Your task to perform on an android device: Open Wikipedia Image 0: 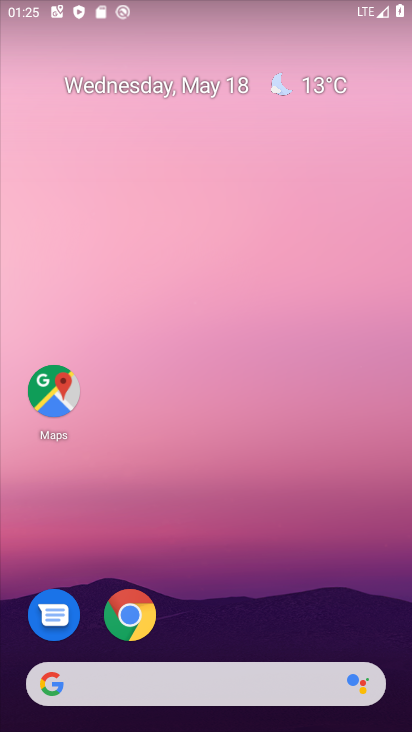
Step 0: press home button
Your task to perform on an android device: Open Wikipedia Image 1: 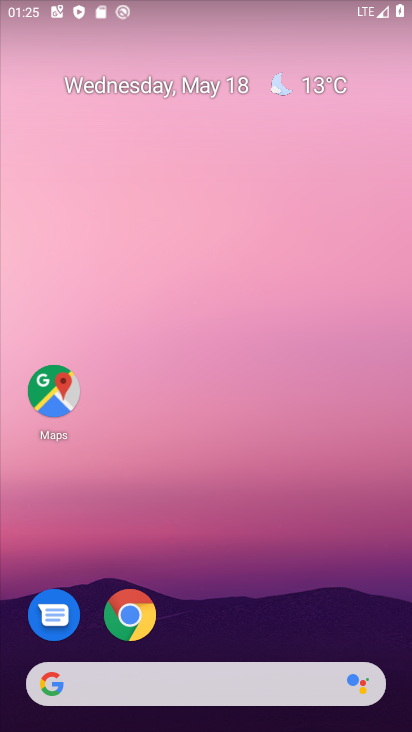
Step 1: click (140, 607)
Your task to perform on an android device: Open Wikipedia Image 2: 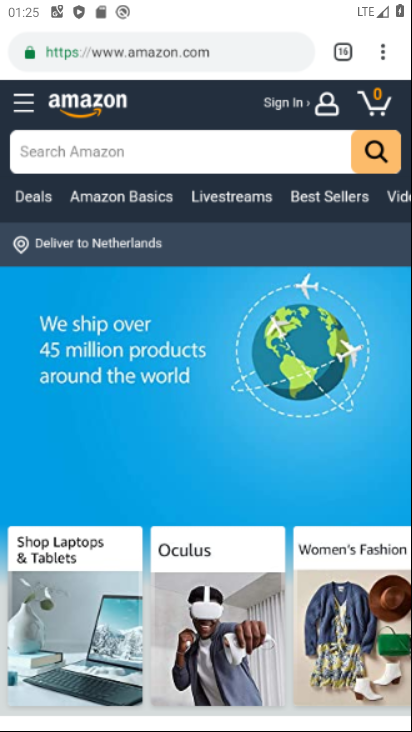
Step 2: drag from (382, 58) to (249, 105)
Your task to perform on an android device: Open Wikipedia Image 3: 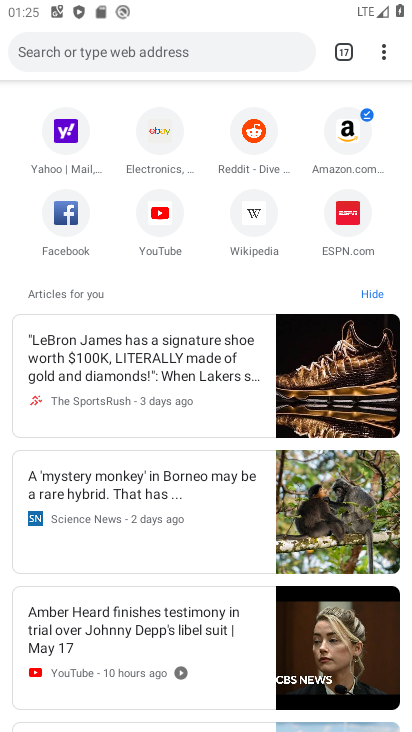
Step 3: click (259, 227)
Your task to perform on an android device: Open Wikipedia Image 4: 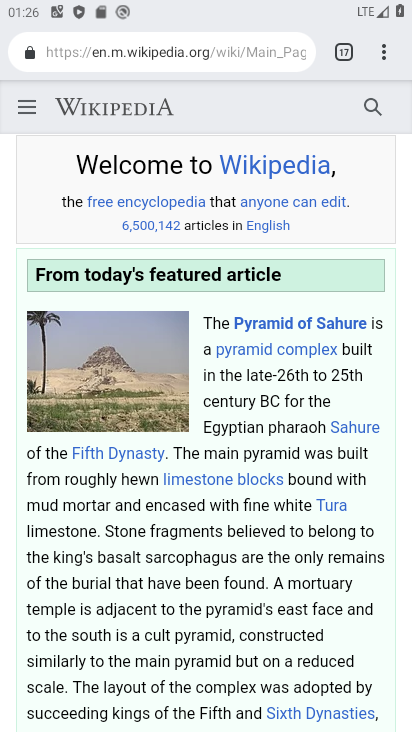
Step 4: task complete